Your task to perform on an android device: turn on airplane mode Image 0: 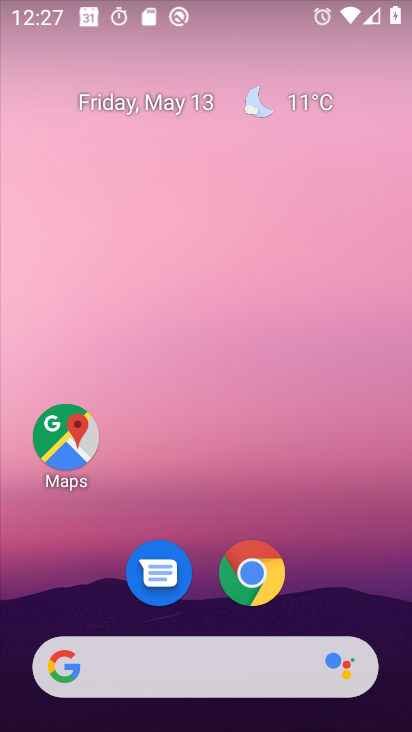
Step 0: drag from (375, 341) to (362, 218)
Your task to perform on an android device: turn on airplane mode Image 1: 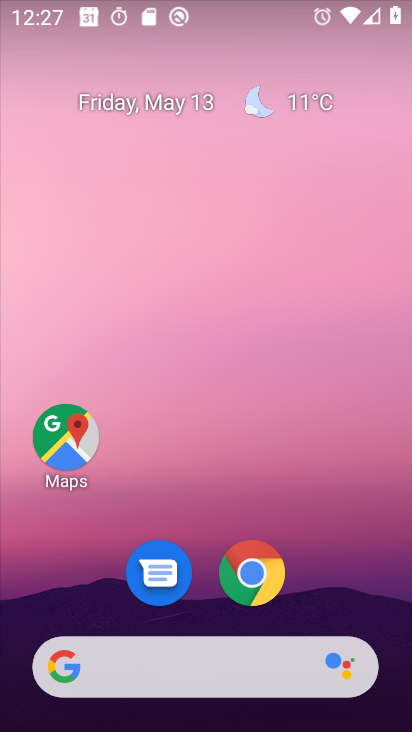
Step 1: drag from (374, 600) to (334, 257)
Your task to perform on an android device: turn on airplane mode Image 2: 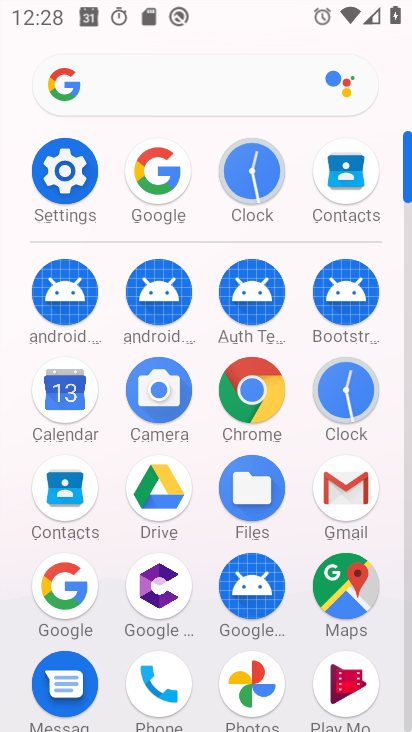
Step 2: click (55, 170)
Your task to perform on an android device: turn on airplane mode Image 3: 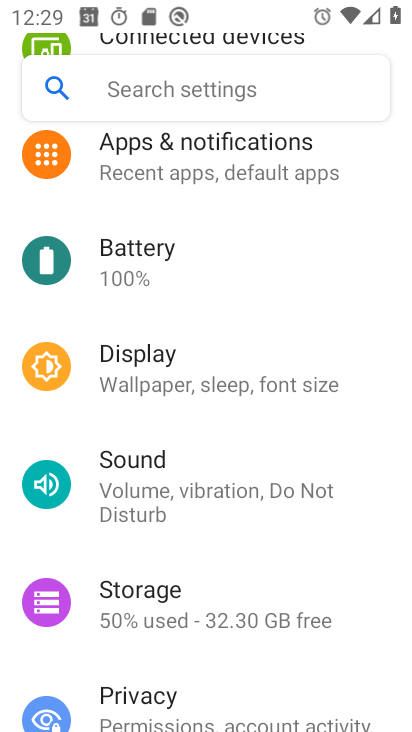
Step 3: drag from (359, 146) to (380, 387)
Your task to perform on an android device: turn on airplane mode Image 4: 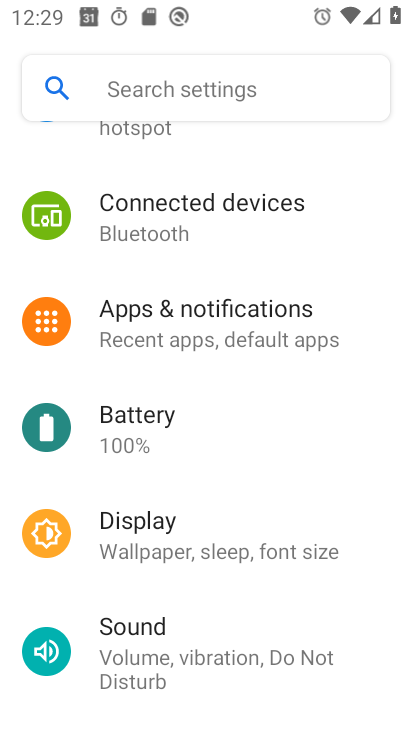
Step 4: drag from (321, 297) to (339, 375)
Your task to perform on an android device: turn on airplane mode Image 5: 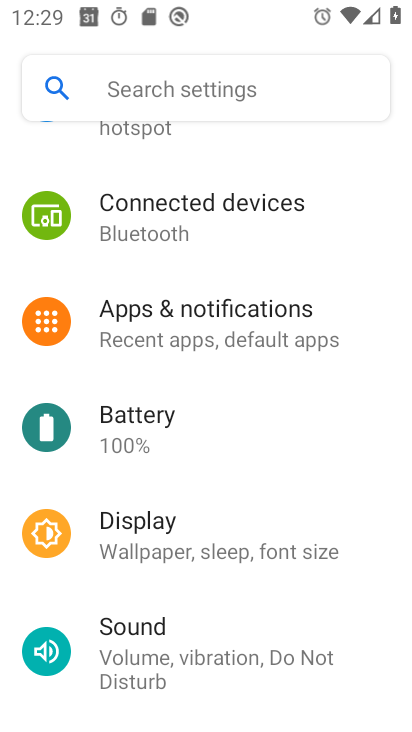
Step 5: drag from (341, 151) to (347, 504)
Your task to perform on an android device: turn on airplane mode Image 6: 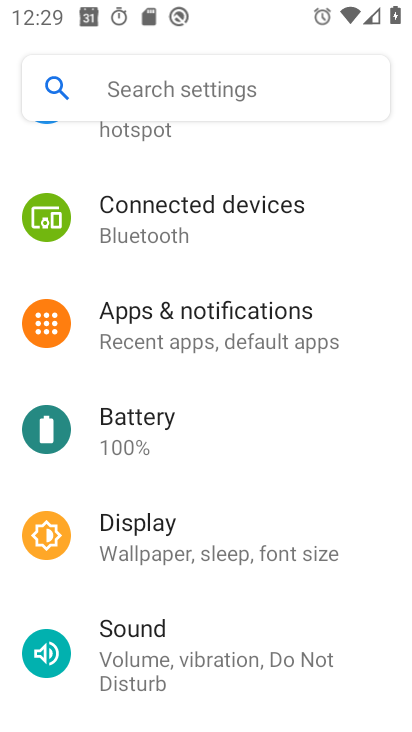
Step 6: drag from (347, 200) to (388, 592)
Your task to perform on an android device: turn on airplane mode Image 7: 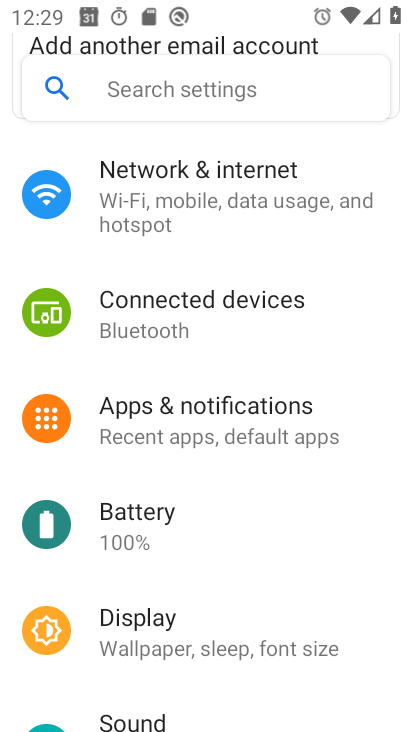
Step 7: drag from (325, 158) to (344, 418)
Your task to perform on an android device: turn on airplane mode Image 8: 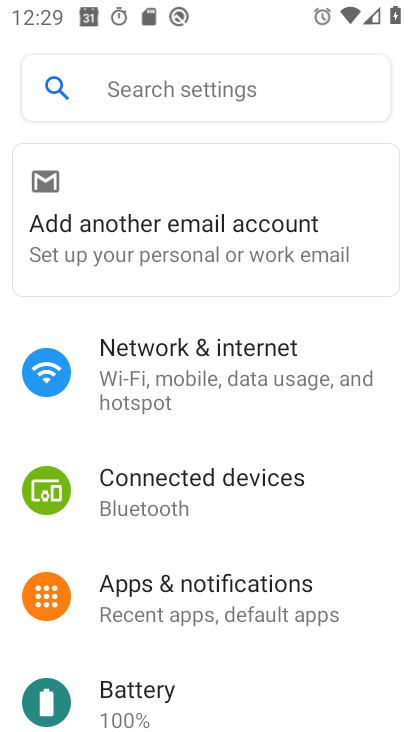
Step 8: click (158, 367)
Your task to perform on an android device: turn on airplane mode Image 9: 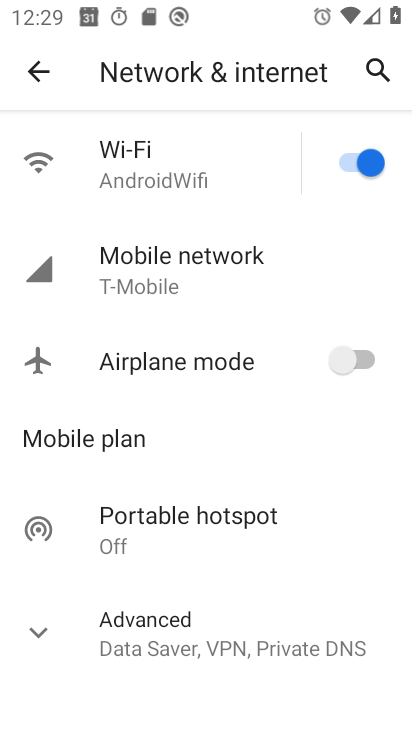
Step 9: click (361, 358)
Your task to perform on an android device: turn on airplane mode Image 10: 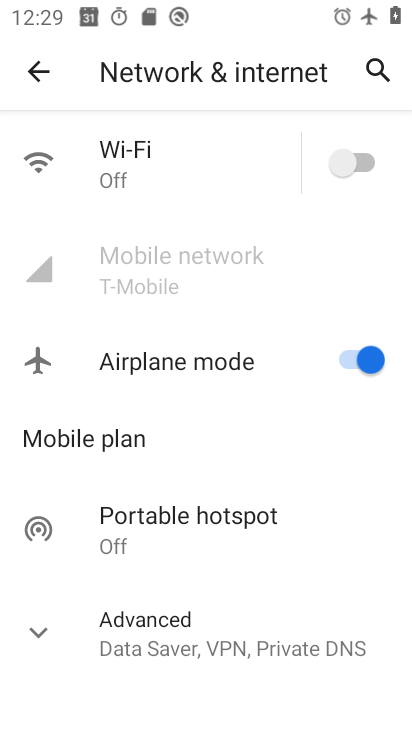
Step 10: task complete